Your task to perform on an android device: open a bookmark in the chrome app Image 0: 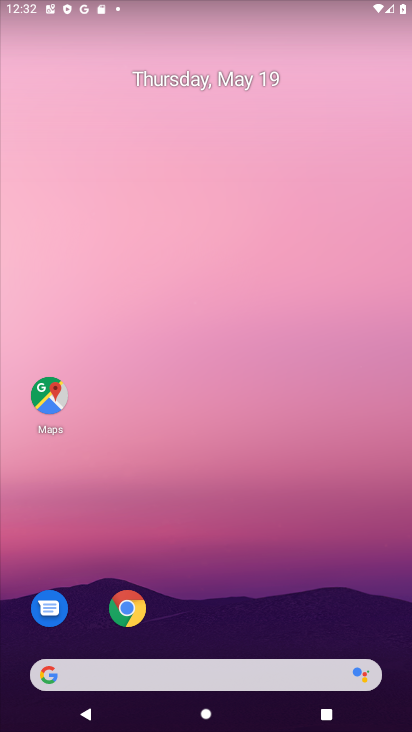
Step 0: drag from (243, 595) to (261, 308)
Your task to perform on an android device: open a bookmark in the chrome app Image 1: 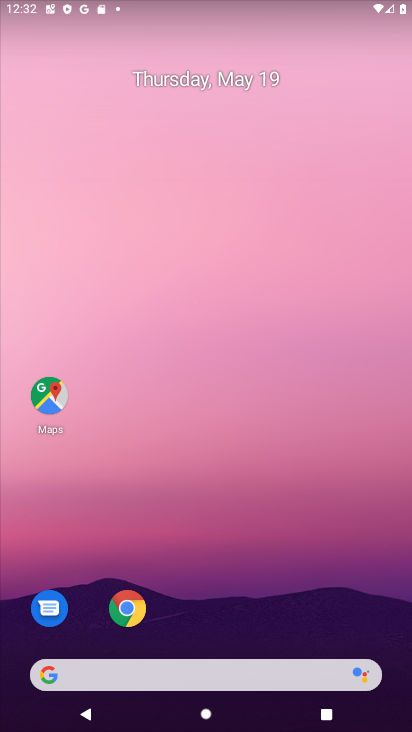
Step 1: drag from (208, 589) to (240, 257)
Your task to perform on an android device: open a bookmark in the chrome app Image 2: 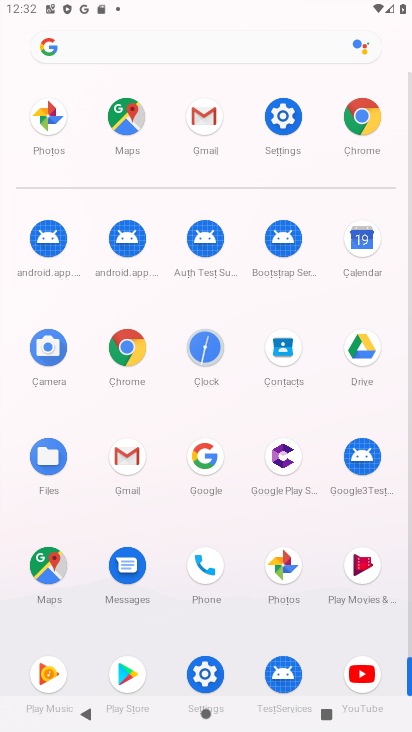
Step 2: click (362, 113)
Your task to perform on an android device: open a bookmark in the chrome app Image 3: 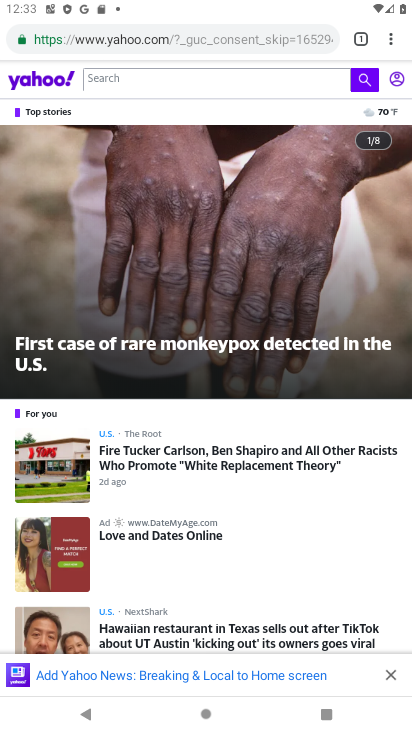
Step 3: click (398, 39)
Your task to perform on an android device: open a bookmark in the chrome app Image 4: 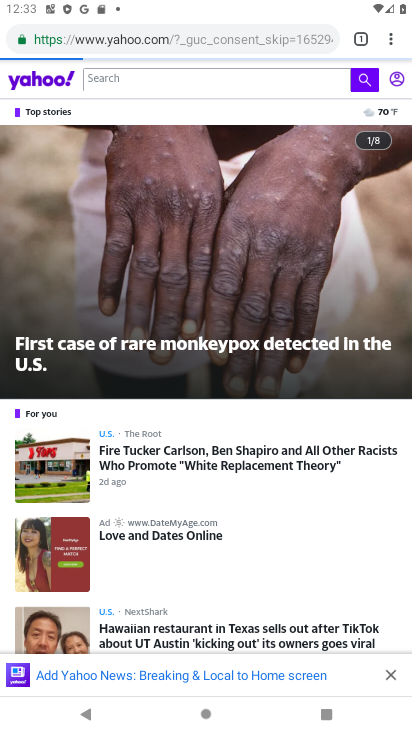
Step 4: click (384, 30)
Your task to perform on an android device: open a bookmark in the chrome app Image 5: 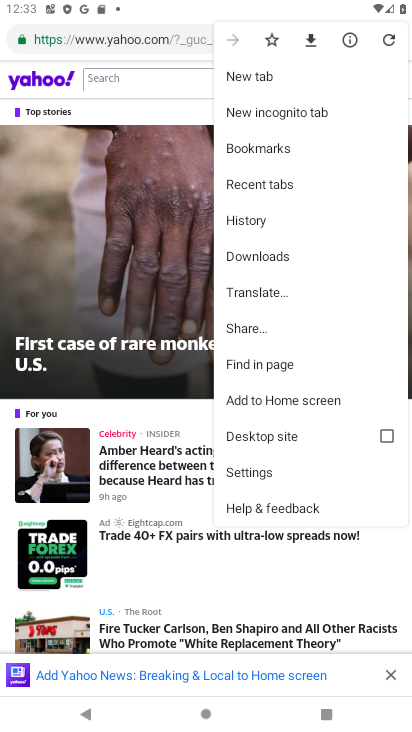
Step 5: click (285, 151)
Your task to perform on an android device: open a bookmark in the chrome app Image 6: 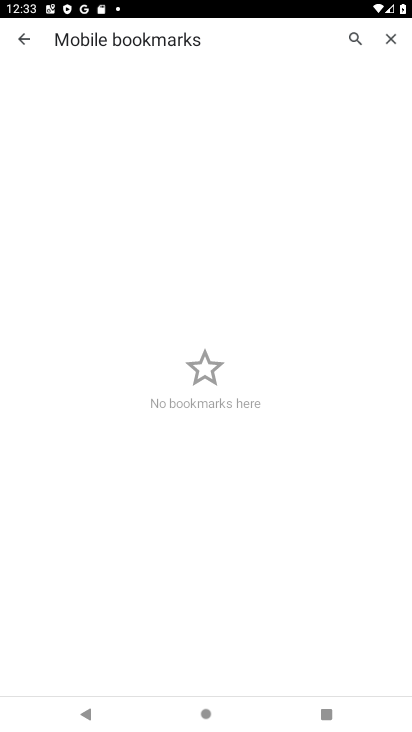
Step 6: task complete